Your task to perform on an android device: Go to internet settings Image 0: 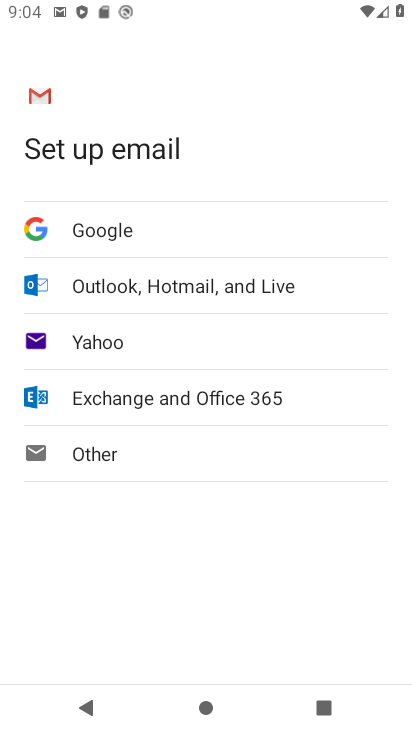
Step 0: press home button
Your task to perform on an android device: Go to internet settings Image 1: 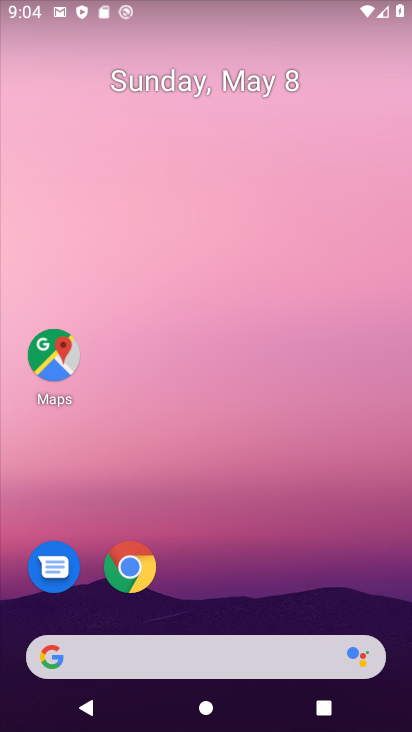
Step 1: drag from (221, 716) to (173, 216)
Your task to perform on an android device: Go to internet settings Image 2: 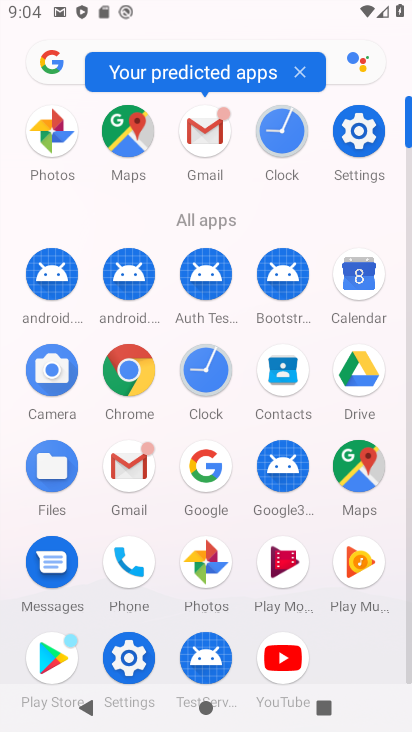
Step 2: click (362, 129)
Your task to perform on an android device: Go to internet settings Image 3: 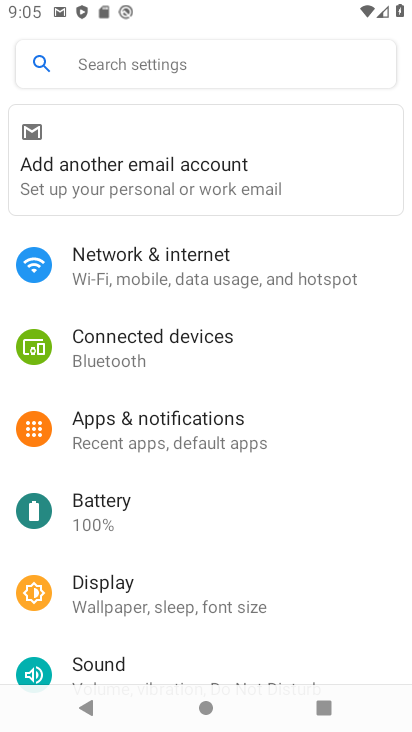
Step 3: click (165, 267)
Your task to perform on an android device: Go to internet settings Image 4: 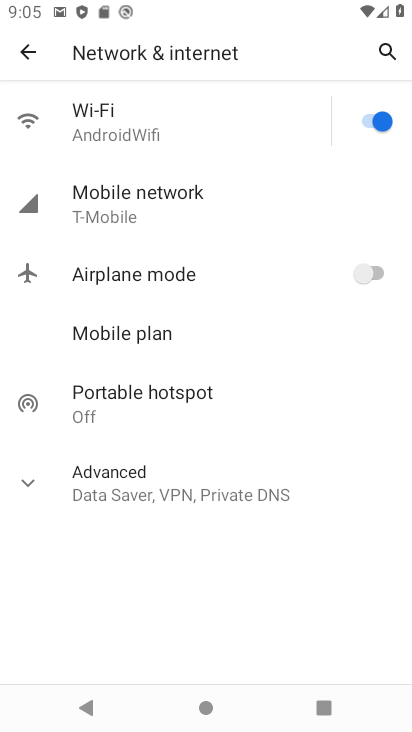
Step 4: task complete